Your task to perform on an android device: change the clock display to digital Image 0: 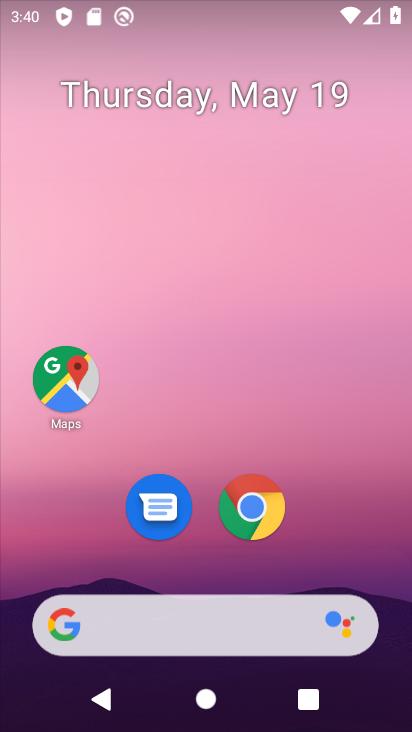
Step 0: drag from (386, 490) to (355, 255)
Your task to perform on an android device: change the clock display to digital Image 1: 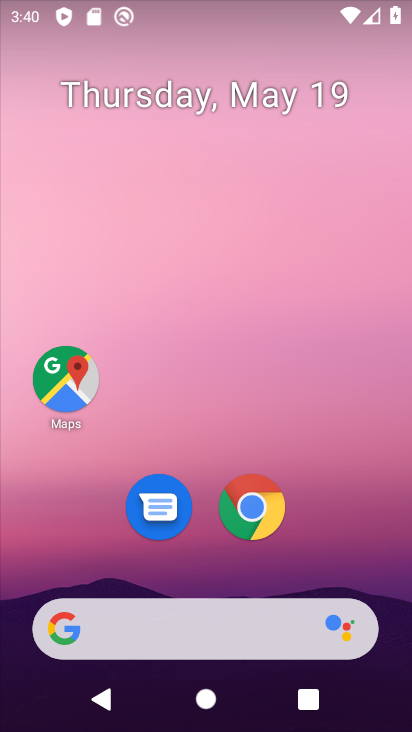
Step 1: drag from (394, 677) to (370, 64)
Your task to perform on an android device: change the clock display to digital Image 2: 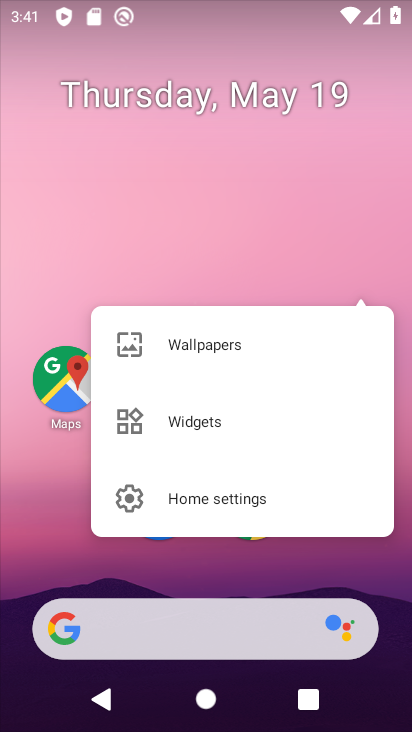
Step 2: click (383, 646)
Your task to perform on an android device: change the clock display to digital Image 3: 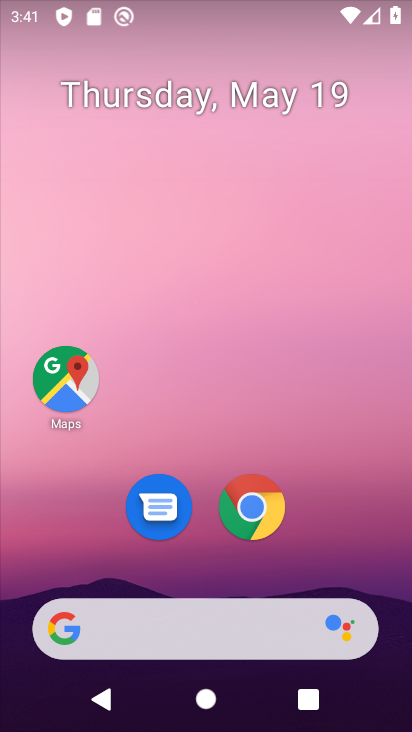
Step 3: drag from (393, 671) to (384, 110)
Your task to perform on an android device: change the clock display to digital Image 4: 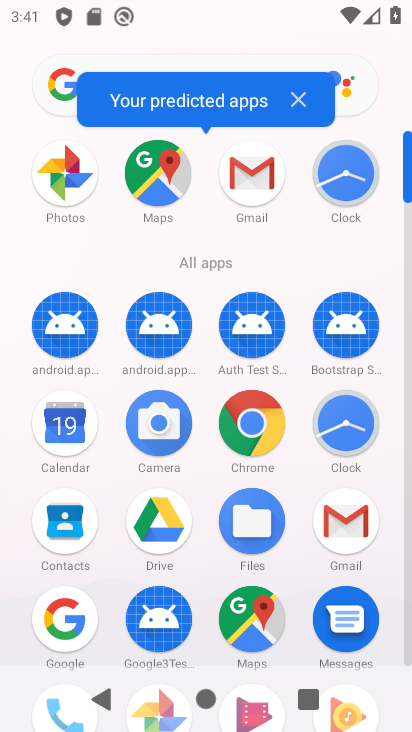
Step 4: click (354, 412)
Your task to perform on an android device: change the clock display to digital Image 5: 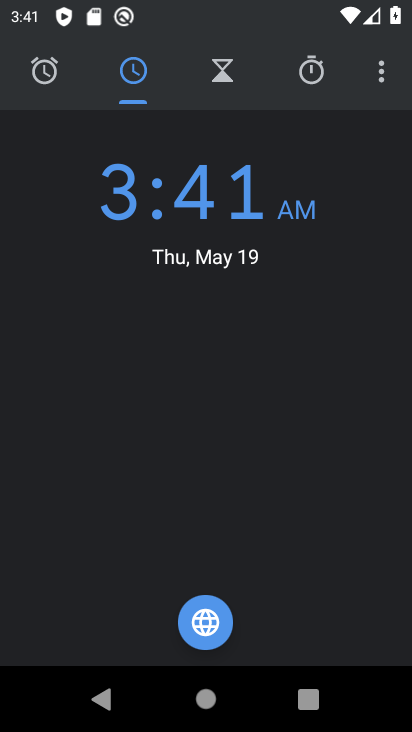
Step 5: click (385, 73)
Your task to perform on an android device: change the clock display to digital Image 6: 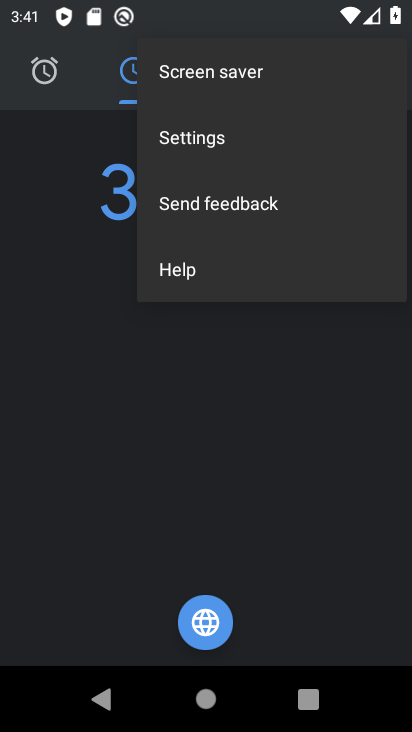
Step 6: click (188, 137)
Your task to perform on an android device: change the clock display to digital Image 7: 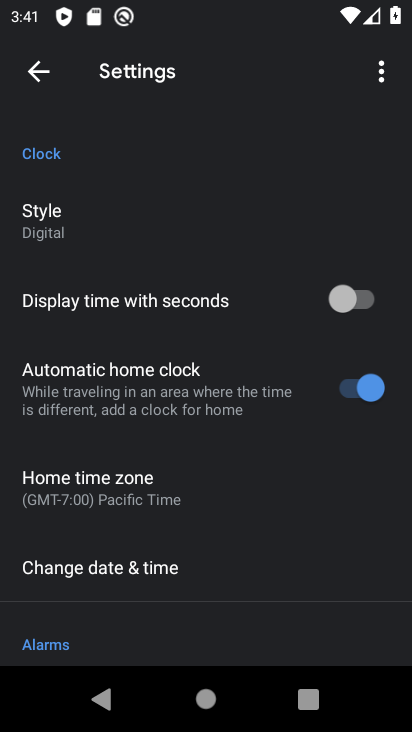
Step 7: click (43, 227)
Your task to perform on an android device: change the clock display to digital Image 8: 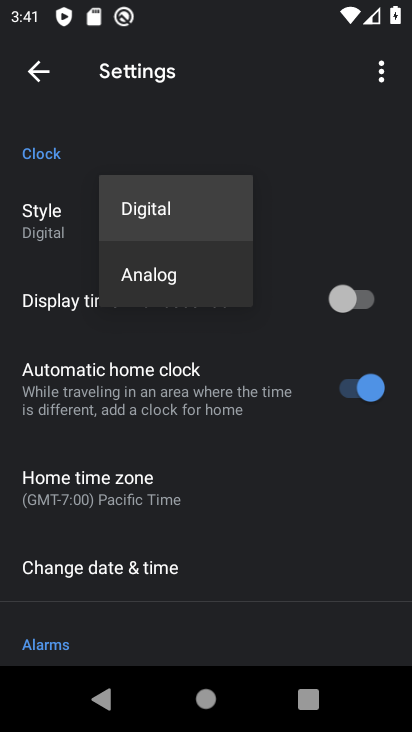
Step 8: click (162, 274)
Your task to perform on an android device: change the clock display to digital Image 9: 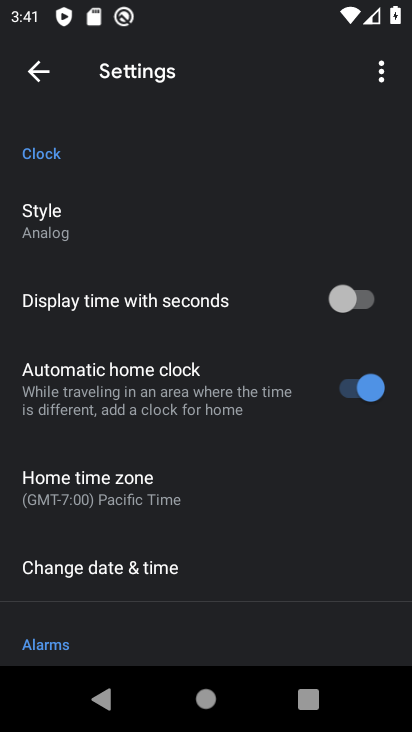
Step 9: click (33, 217)
Your task to perform on an android device: change the clock display to digital Image 10: 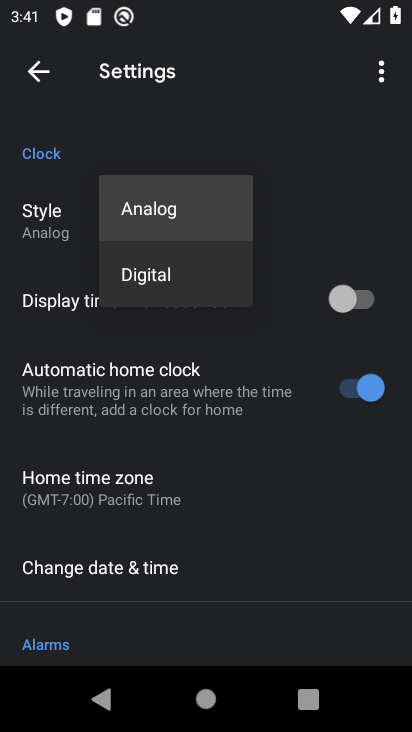
Step 10: click (155, 270)
Your task to perform on an android device: change the clock display to digital Image 11: 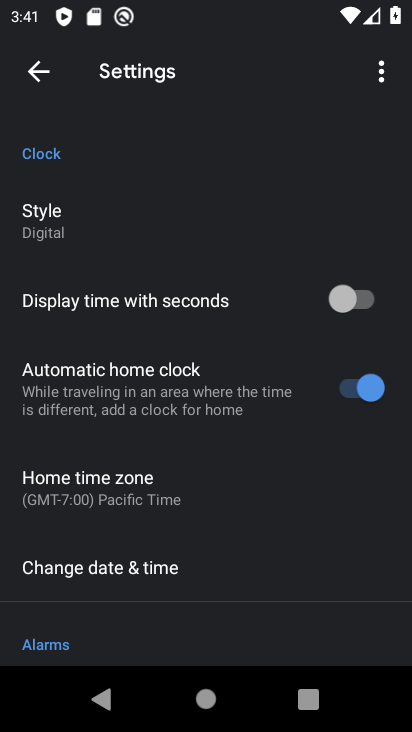
Step 11: task complete